Your task to perform on an android device: stop showing notifications on the lock screen Image 0: 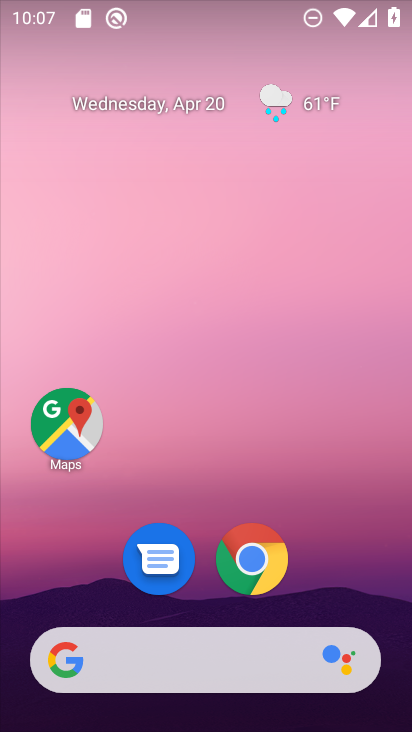
Step 0: drag from (383, 600) to (320, 77)
Your task to perform on an android device: stop showing notifications on the lock screen Image 1: 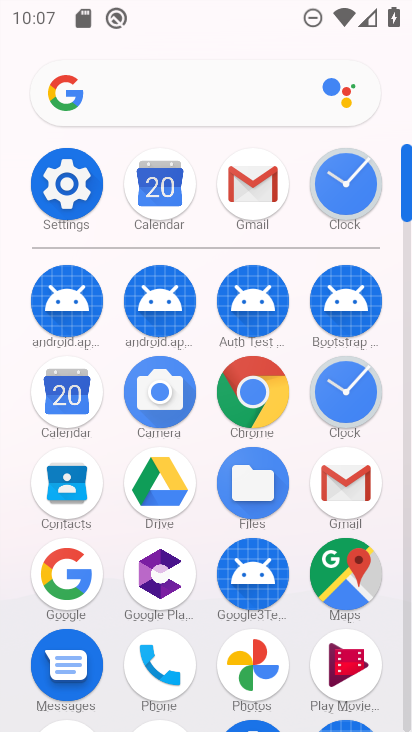
Step 1: click (409, 699)
Your task to perform on an android device: stop showing notifications on the lock screen Image 2: 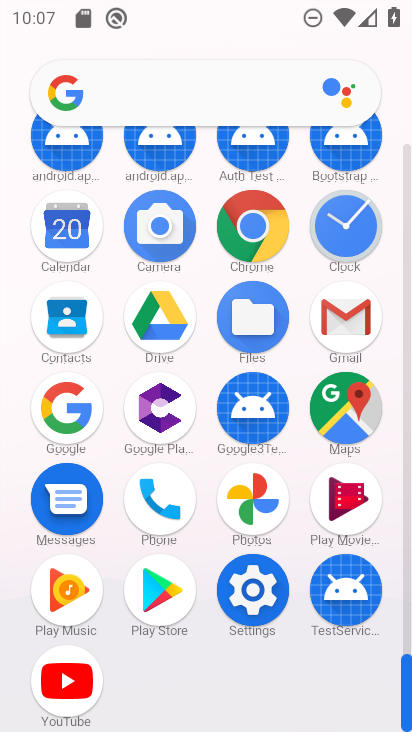
Step 2: click (254, 588)
Your task to perform on an android device: stop showing notifications on the lock screen Image 3: 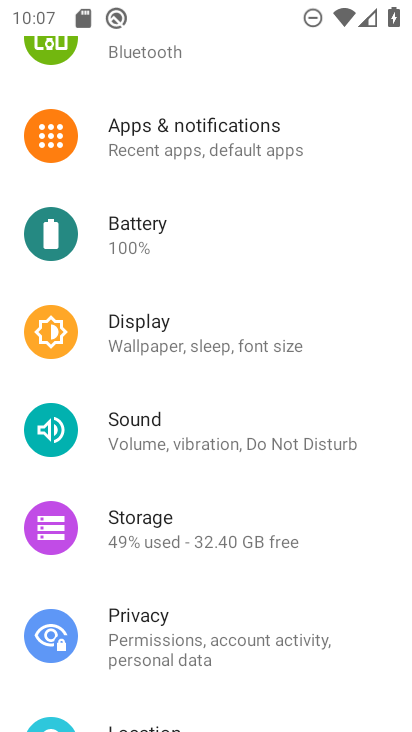
Step 3: click (185, 133)
Your task to perform on an android device: stop showing notifications on the lock screen Image 4: 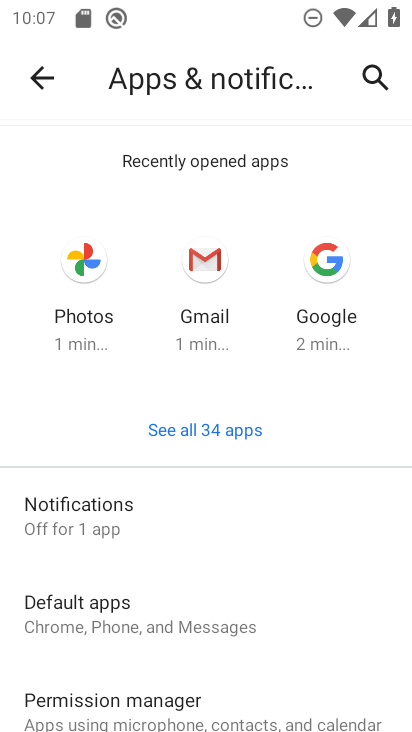
Step 4: click (82, 513)
Your task to perform on an android device: stop showing notifications on the lock screen Image 5: 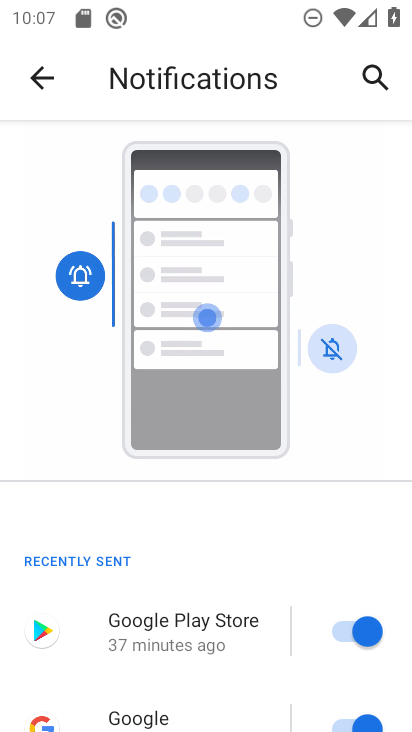
Step 5: drag from (283, 654) to (273, 288)
Your task to perform on an android device: stop showing notifications on the lock screen Image 6: 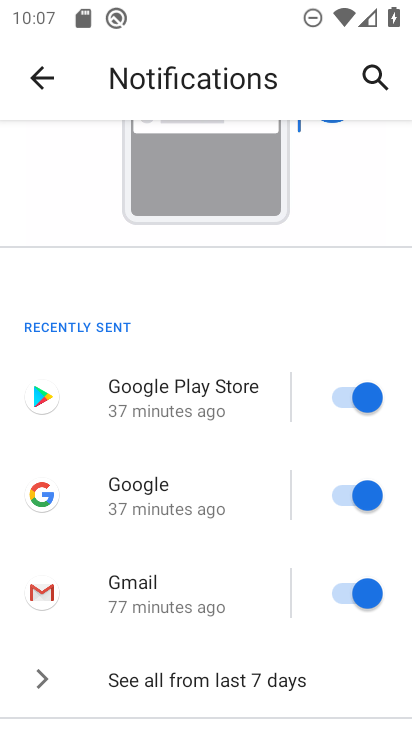
Step 6: drag from (283, 593) to (279, 188)
Your task to perform on an android device: stop showing notifications on the lock screen Image 7: 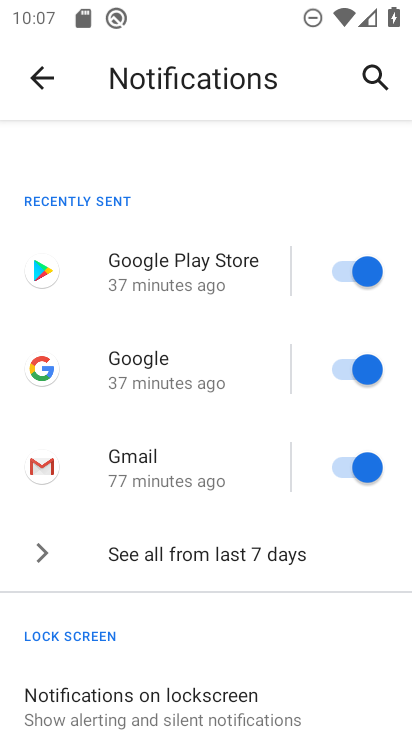
Step 7: drag from (255, 618) to (253, 230)
Your task to perform on an android device: stop showing notifications on the lock screen Image 8: 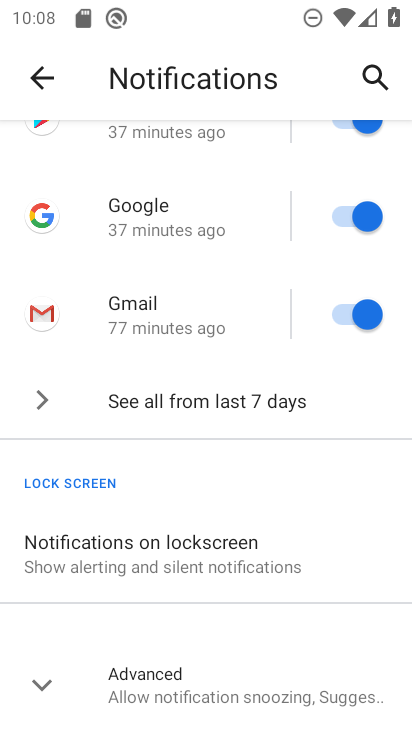
Step 8: click (98, 554)
Your task to perform on an android device: stop showing notifications on the lock screen Image 9: 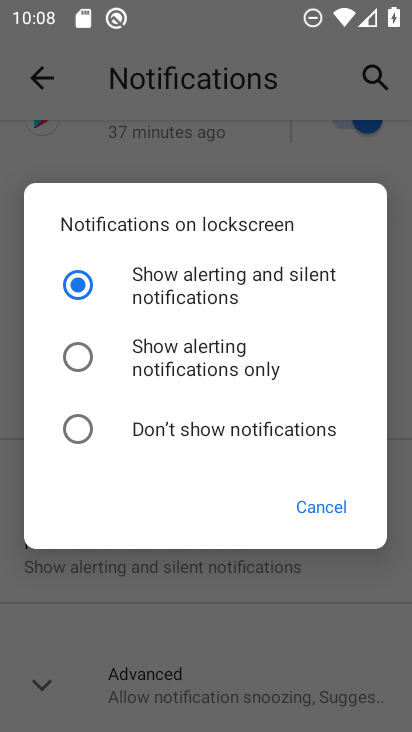
Step 9: click (78, 431)
Your task to perform on an android device: stop showing notifications on the lock screen Image 10: 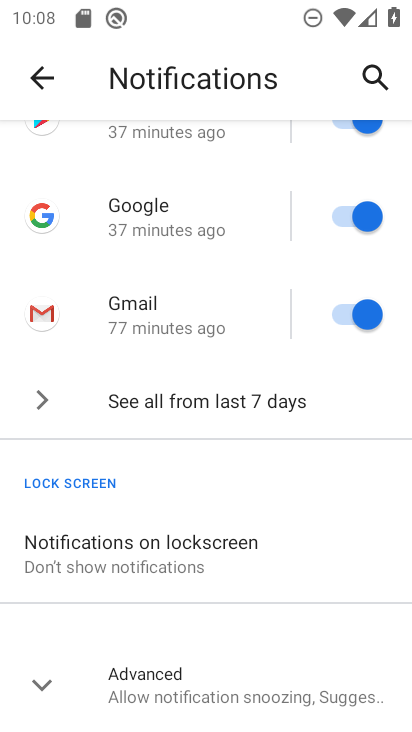
Step 10: task complete